Your task to perform on an android device: Do I have any events today? Image 0: 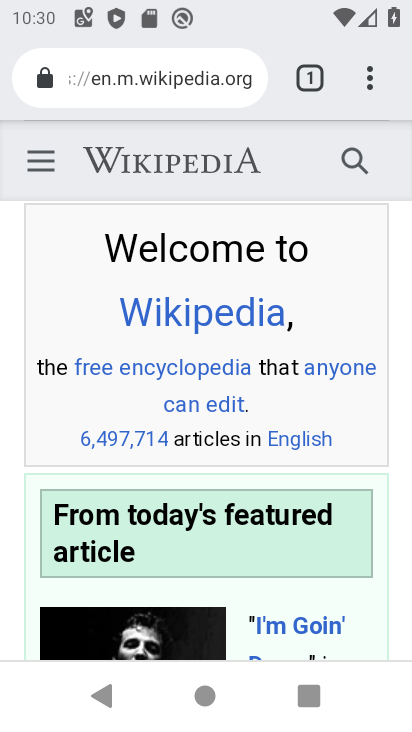
Step 0: press home button
Your task to perform on an android device: Do I have any events today? Image 1: 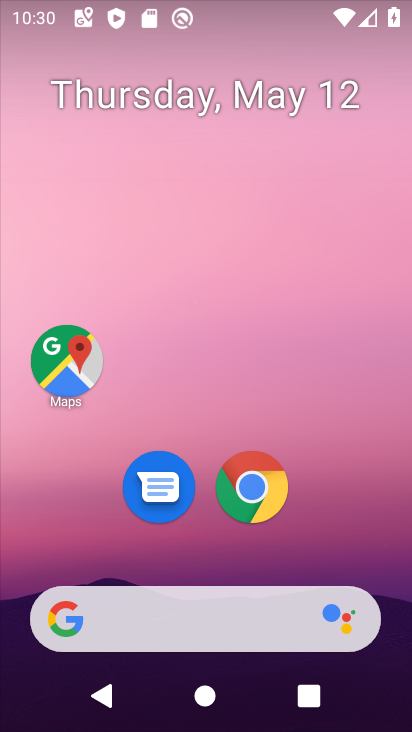
Step 1: drag from (34, 682) to (274, 162)
Your task to perform on an android device: Do I have any events today? Image 2: 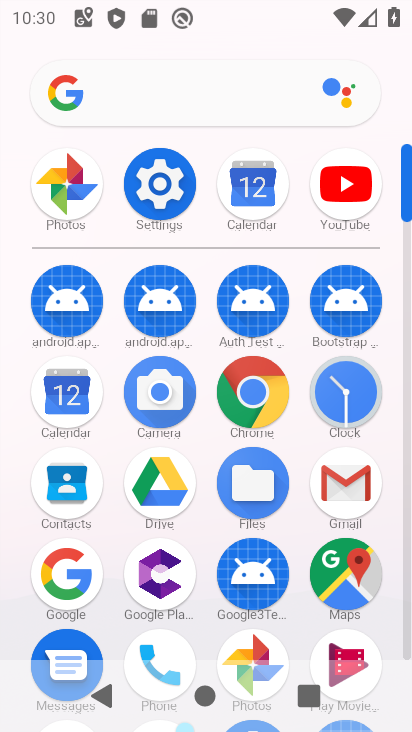
Step 2: click (258, 185)
Your task to perform on an android device: Do I have any events today? Image 3: 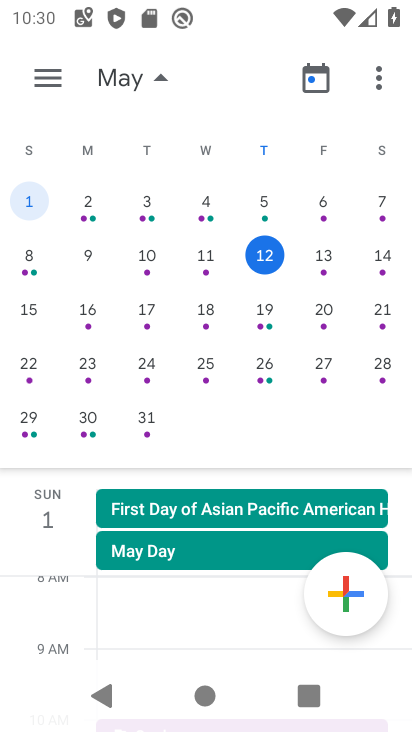
Step 3: click (268, 258)
Your task to perform on an android device: Do I have any events today? Image 4: 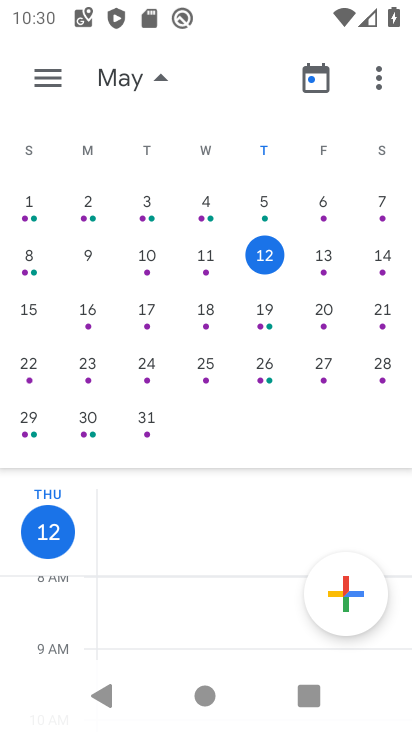
Step 4: task complete